Your task to perform on an android device: toggle data saver in the chrome app Image 0: 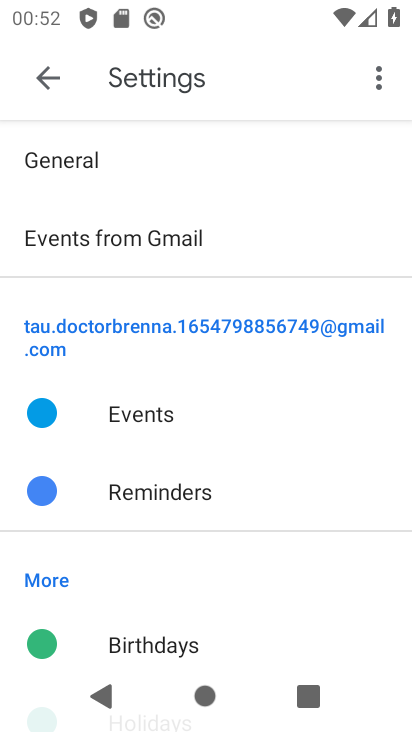
Step 0: press back button
Your task to perform on an android device: toggle data saver in the chrome app Image 1: 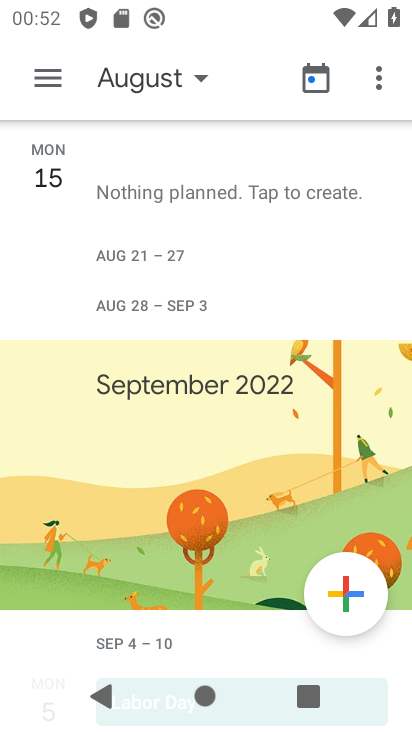
Step 1: press back button
Your task to perform on an android device: toggle data saver in the chrome app Image 2: 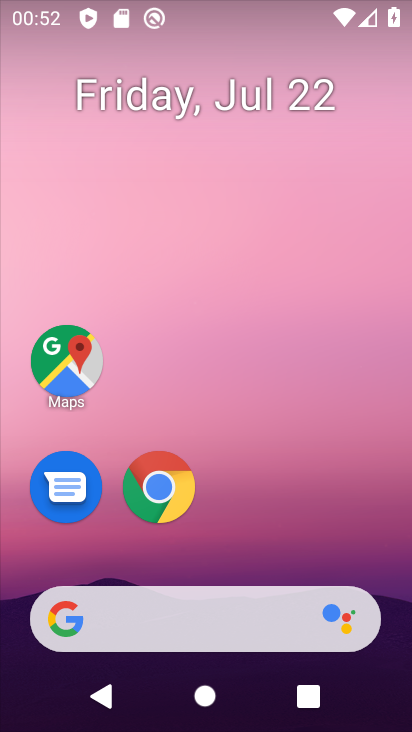
Step 2: click (139, 484)
Your task to perform on an android device: toggle data saver in the chrome app Image 3: 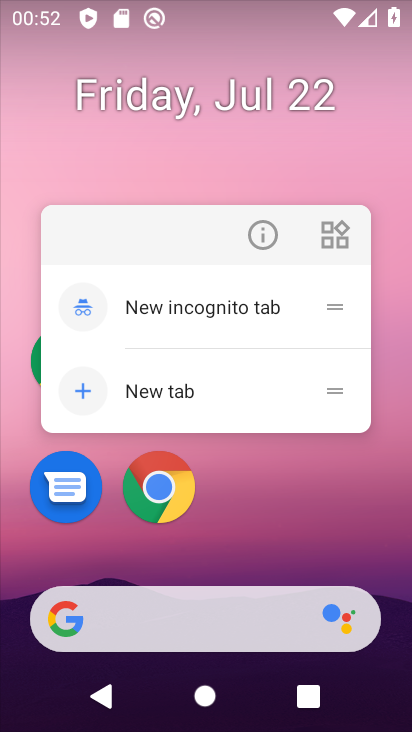
Step 3: click (164, 484)
Your task to perform on an android device: toggle data saver in the chrome app Image 4: 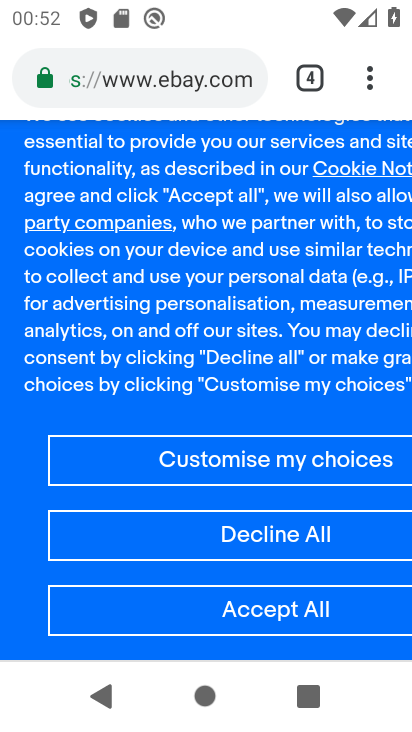
Step 4: drag from (367, 82) to (131, 546)
Your task to perform on an android device: toggle data saver in the chrome app Image 5: 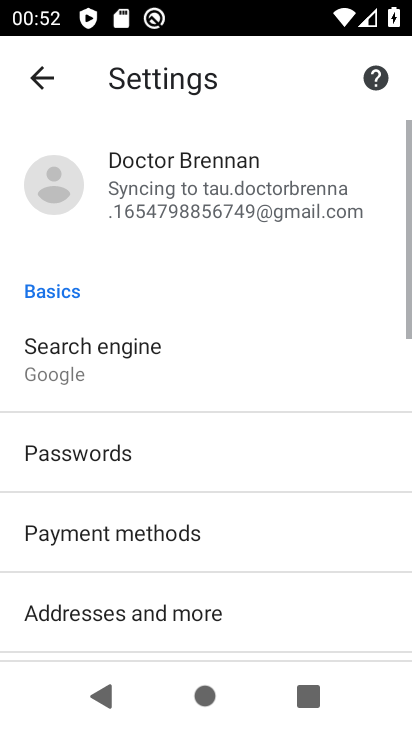
Step 5: drag from (132, 572) to (253, 18)
Your task to perform on an android device: toggle data saver in the chrome app Image 6: 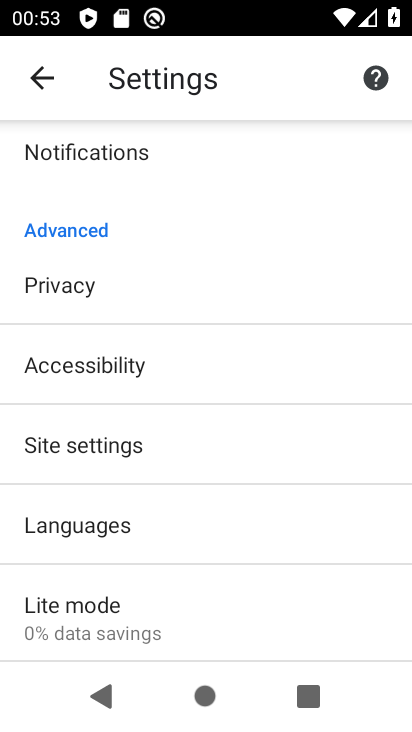
Step 6: click (65, 612)
Your task to perform on an android device: toggle data saver in the chrome app Image 7: 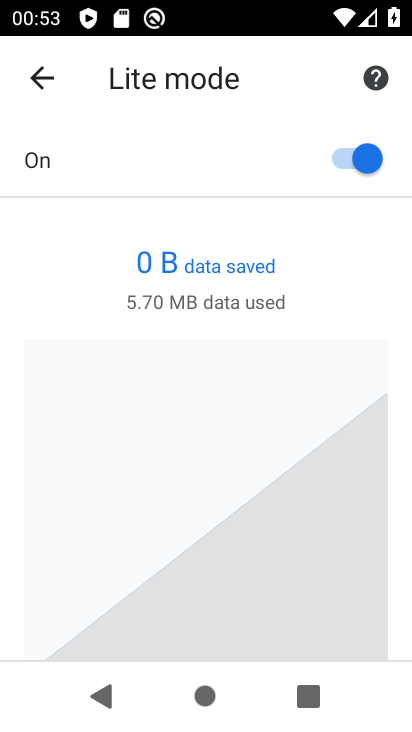
Step 7: click (384, 158)
Your task to perform on an android device: toggle data saver in the chrome app Image 8: 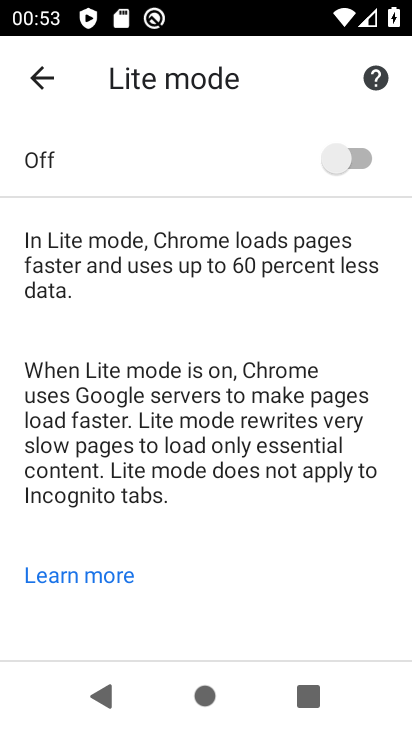
Step 8: task complete